Your task to perform on an android device: Open accessibility settings Image 0: 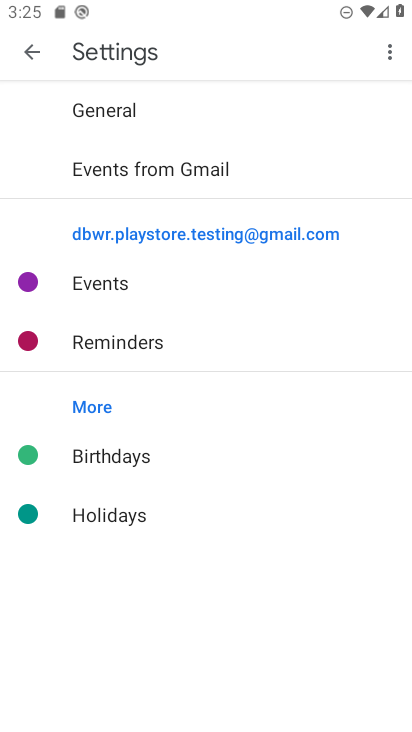
Step 0: press home button
Your task to perform on an android device: Open accessibility settings Image 1: 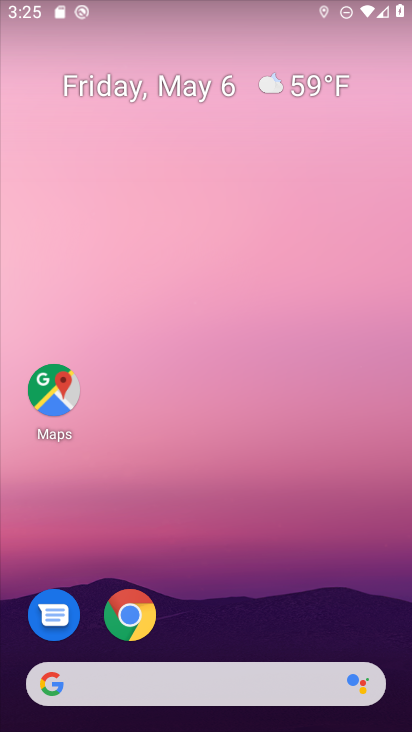
Step 1: drag from (333, 584) to (358, 231)
Your task to perform on an android device: Open accessibility settings Image 2: 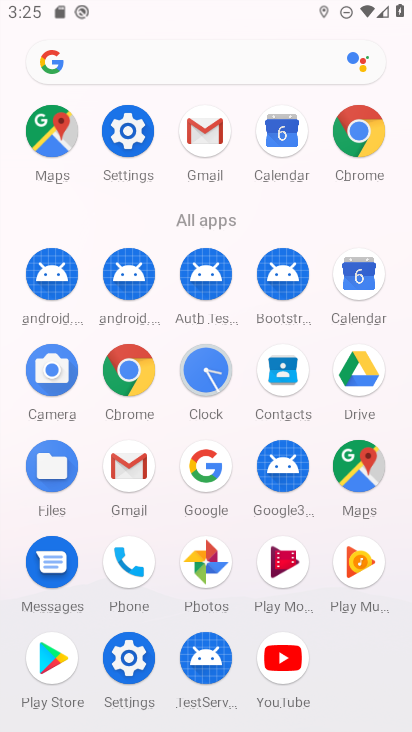
Step 2: click (125, 130)
Your task to perform on an android device: Open accessibility settings Image 3: 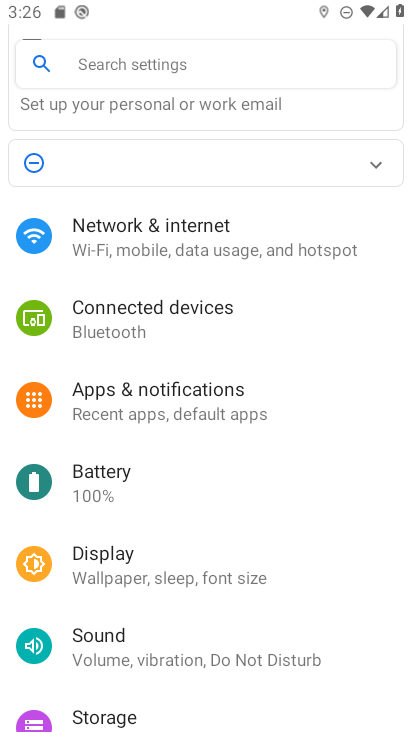
Step 3: drag from (331, 552) to (337, 315)
Your task to perform on an android device: Open accessibility settings Image 4: 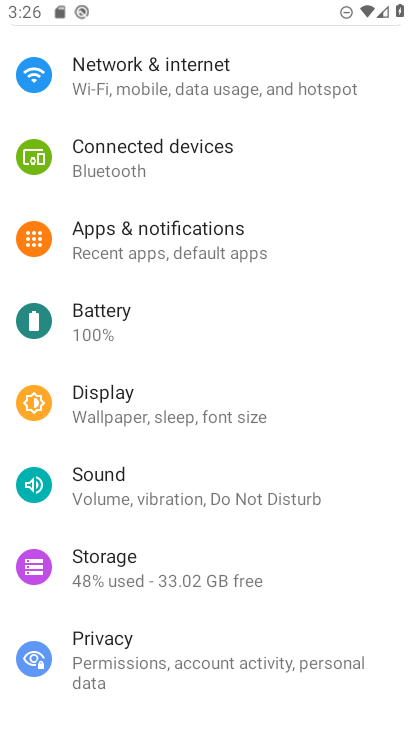
Step 4: drag from (317, 609) to (339, 297)
Your task to perform on an android device: Open accessibility settings Image 5: 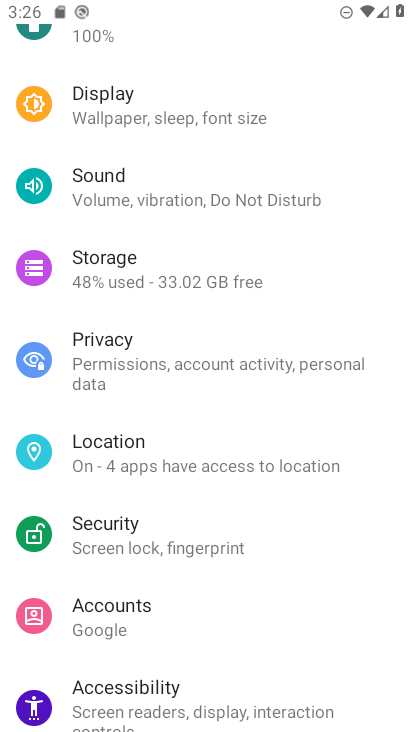
Step 5: click (155, 695)
Your task to perform on an android device: Open accessibility settings Image 6: 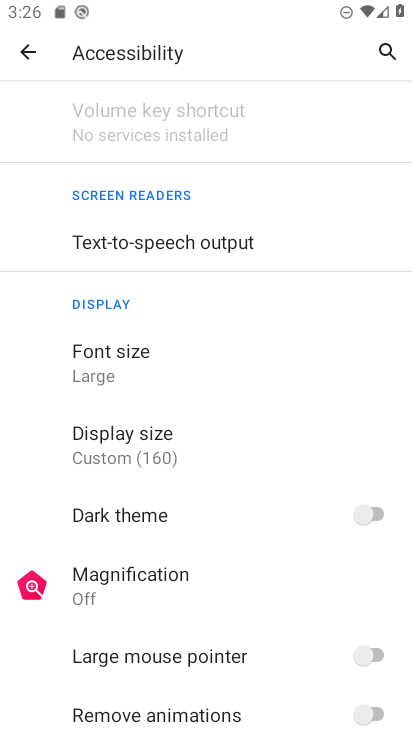
Step 6: task complete